Your task to perform on an android device: Open Google Maps Image 0: 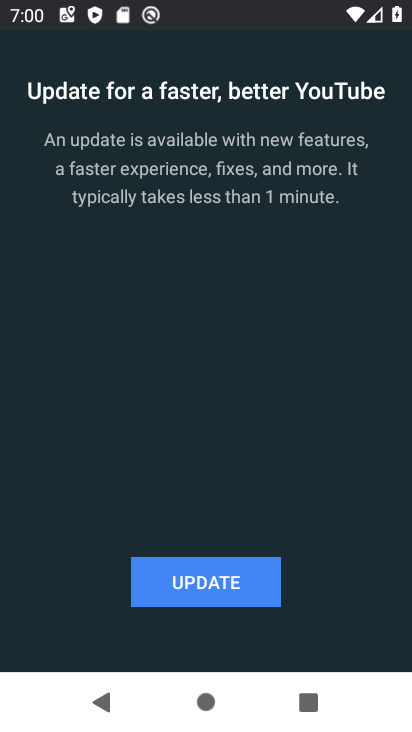
Step 0: press home button
Your task to perform on an android device: Open Google Maps Image 1: 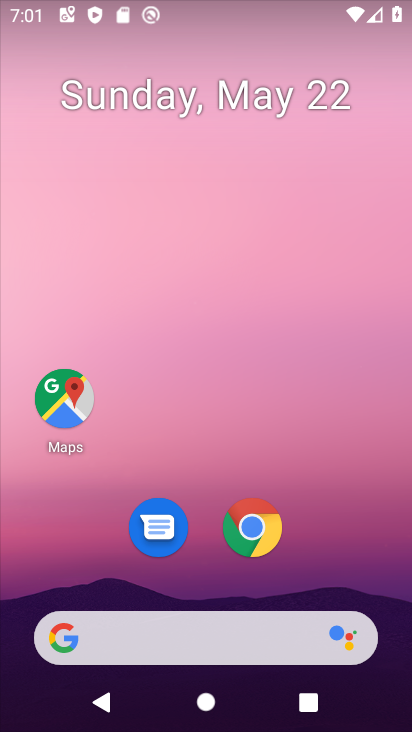
Step 1: drag from (347, 520) to (253, 88)
Your task to perform on an android device: Open Google Maps Image 2: 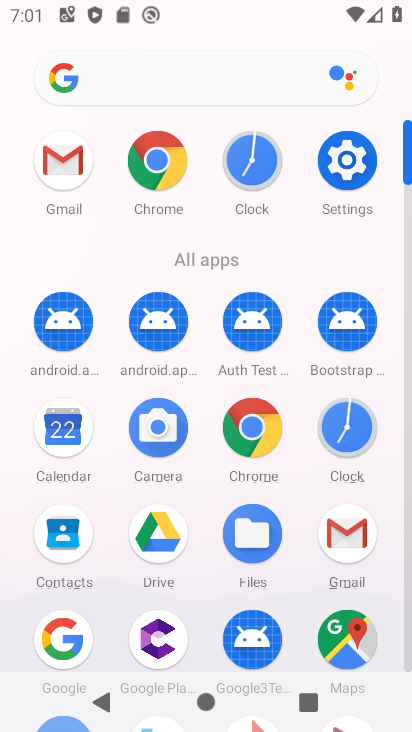
Step 2: click (350, 635)
Your task to perform on an android device: Open Google Maps Image 3: 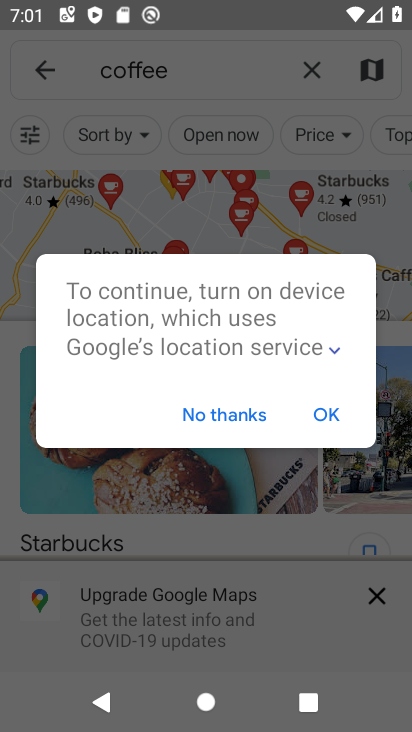
Step 3: task complete